Your task to perform on an android device: toggle sleep mode Image 0: 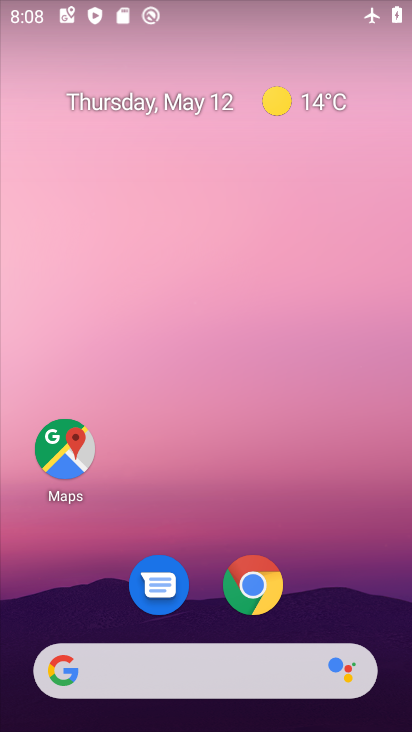
Step 0: drag from (289, 458) to (230, 57)
Your task to perform on an android device: toggle sleep mode Image 1: 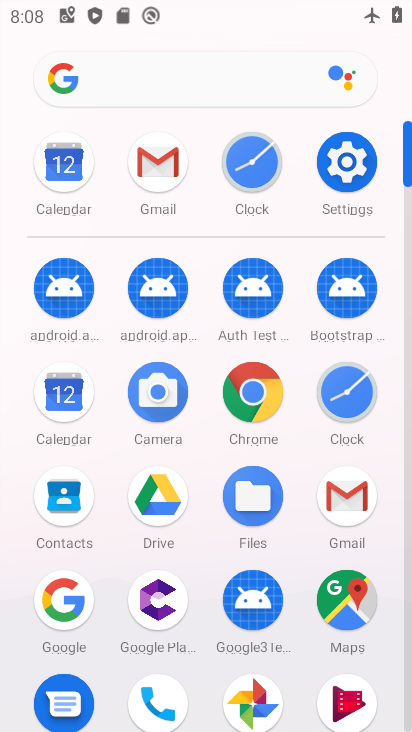
Step 1: click (333, 157)
Your task to perform on an android device: toggle sleep mode Image 2: 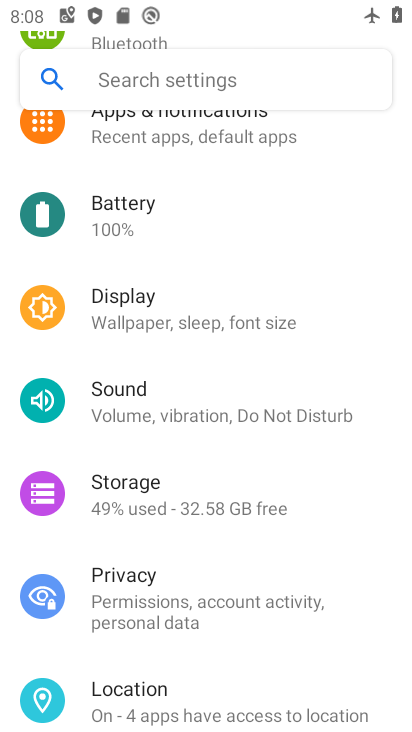
Step 2: click (205, 302)
Your task to perform on an android device: toggle sleep mode Image 3: 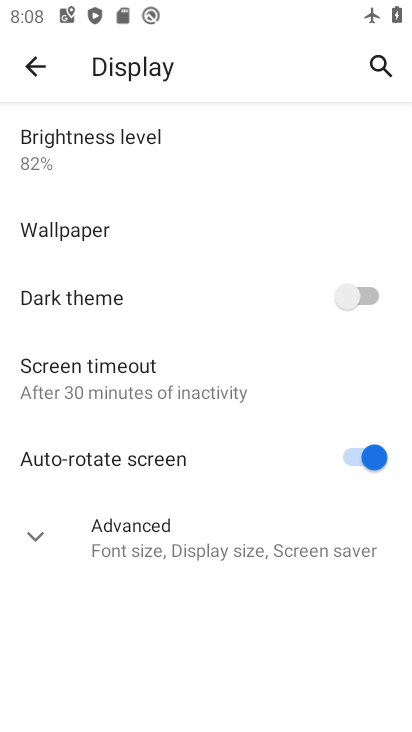
Step 3: click (37, 536)
Your task to perform on an android device: toggle sleep mode Image 4: 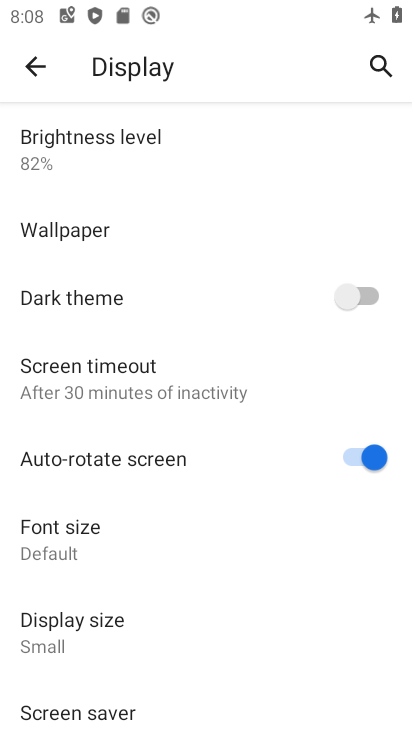
Step 4: task complete